Your task to perform on an android device: Open eBay Image 0: 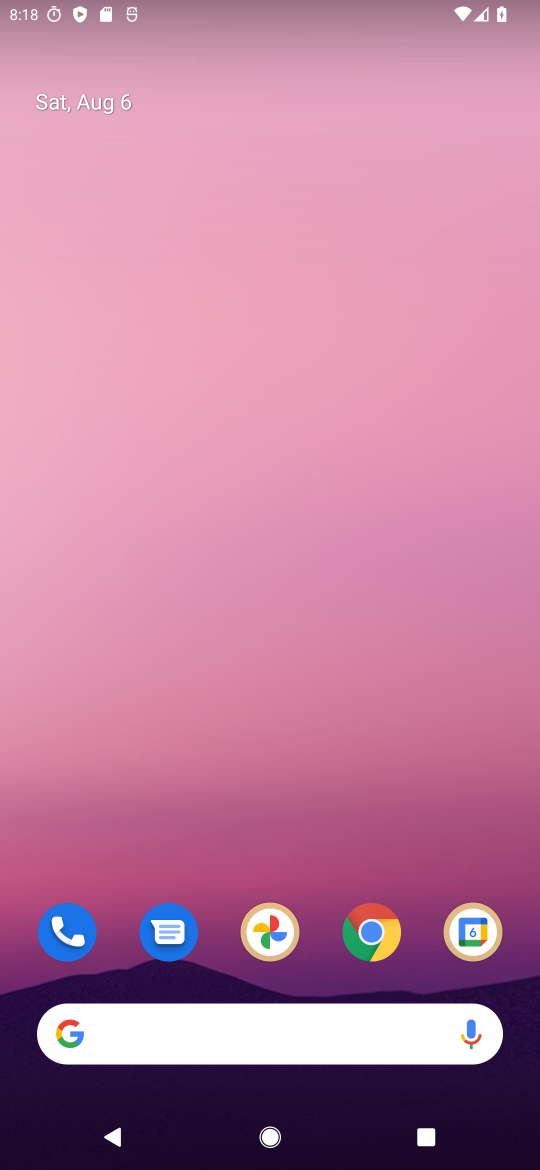
Step 0: press home button
Your task to perform on an android device: Open eBay Image 1: 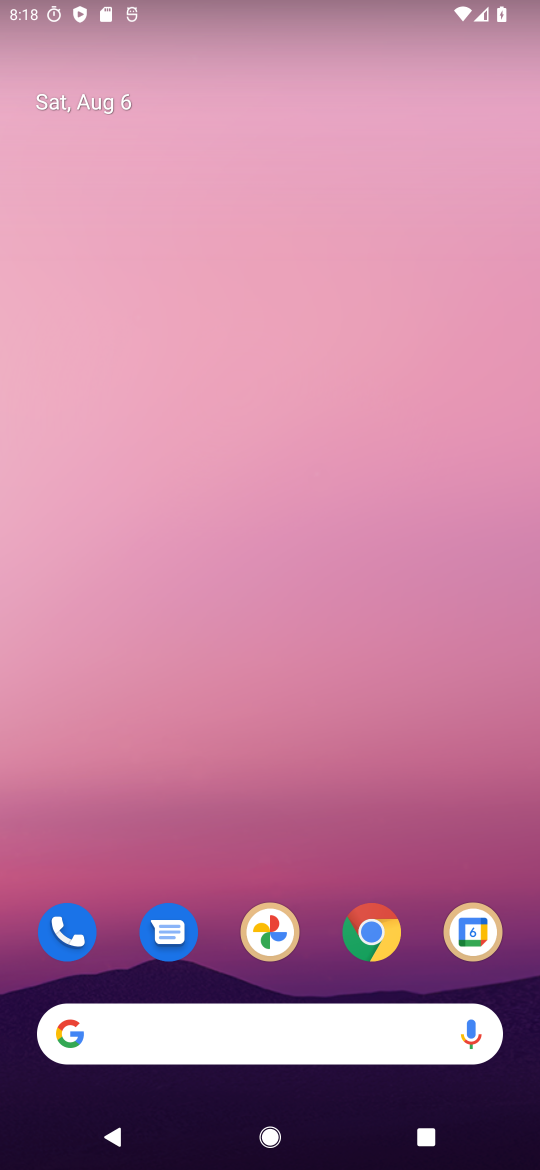
Step 1: click (361, 920)
Your task to perform on an android device: Open eBay Image 2: 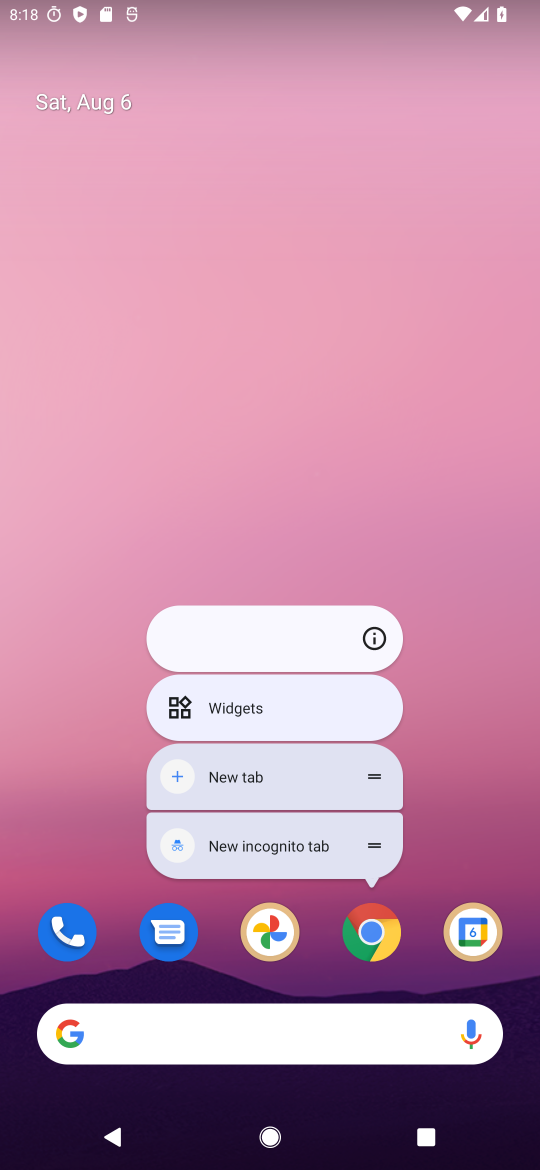
Step 2: click (364, 936)
Your task to perform on an android device: Open eBay Image 3: 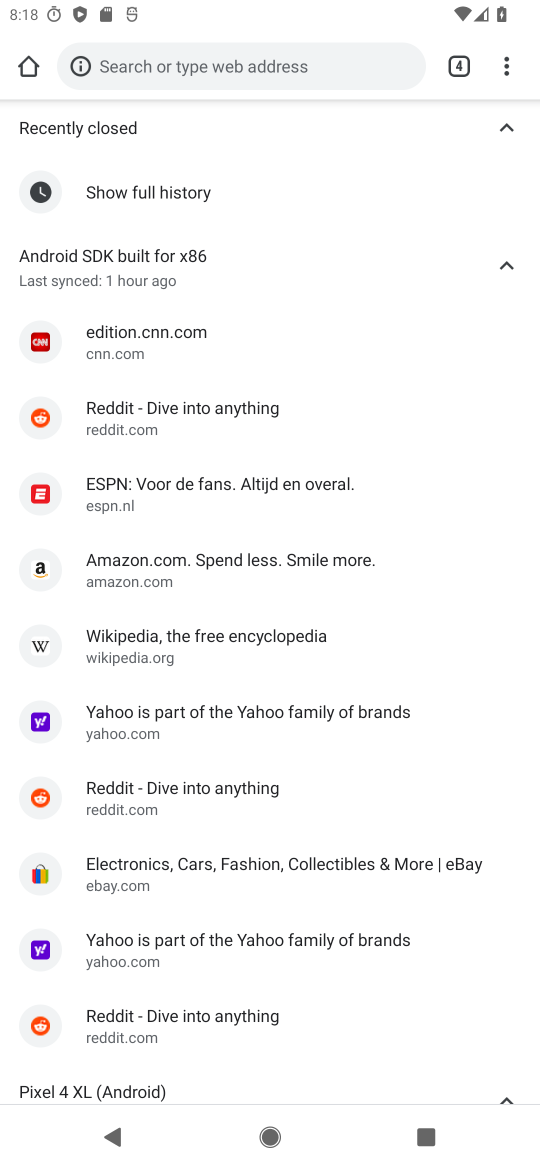
Step 3: drag from (503, 49) to (360, 207)
Your task to perform on an android device: Open eBay Image 4: 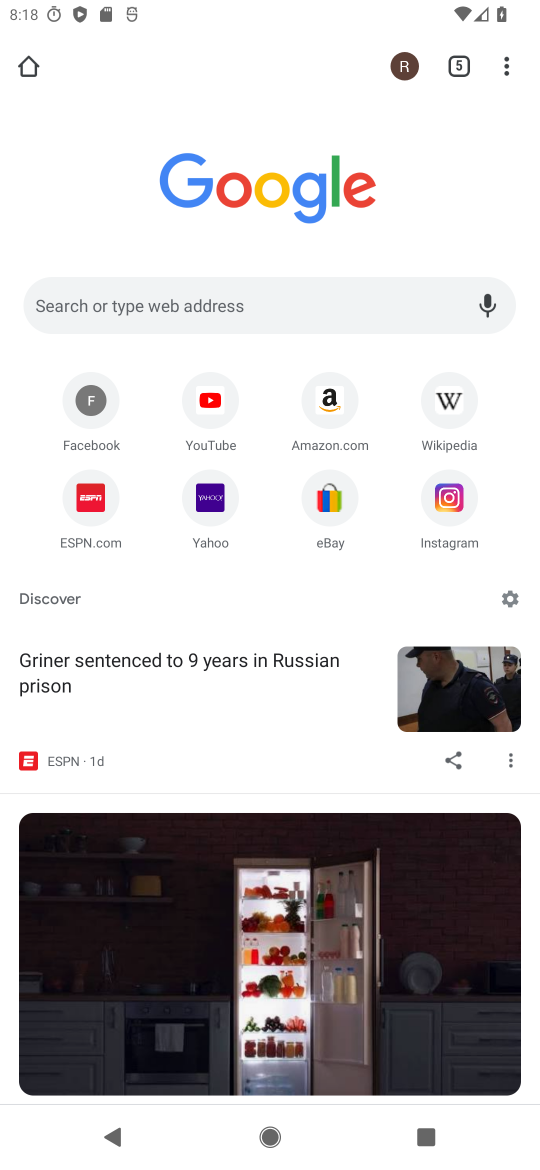
Step 4: click (324, 501)
Your task to perform on an android device: Open eBay Image 5: 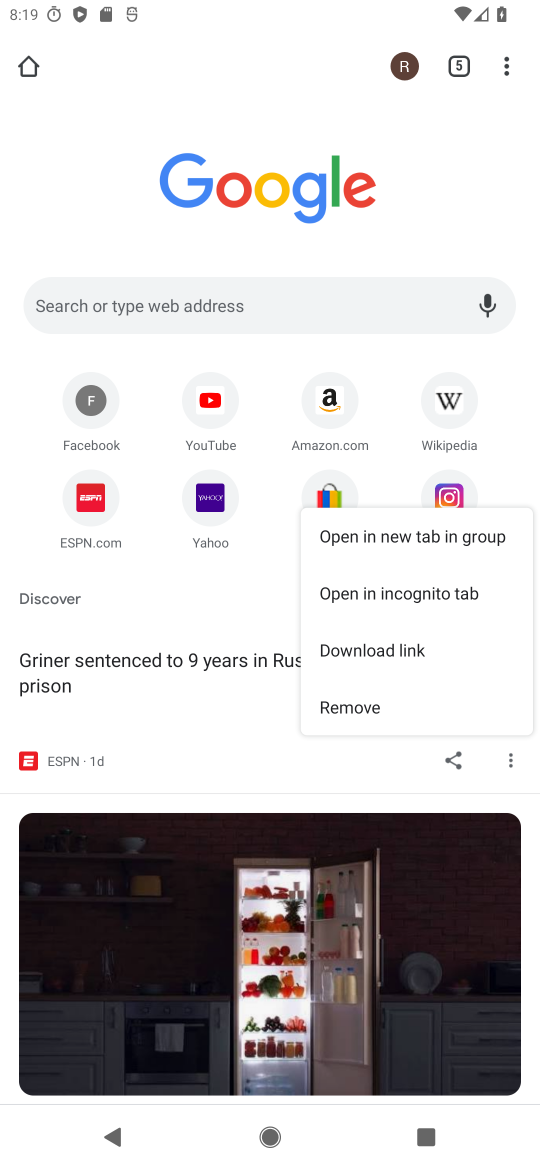
Step 5: click (330, 484)
Your task to perform on an android device: Open eBay Image 6: 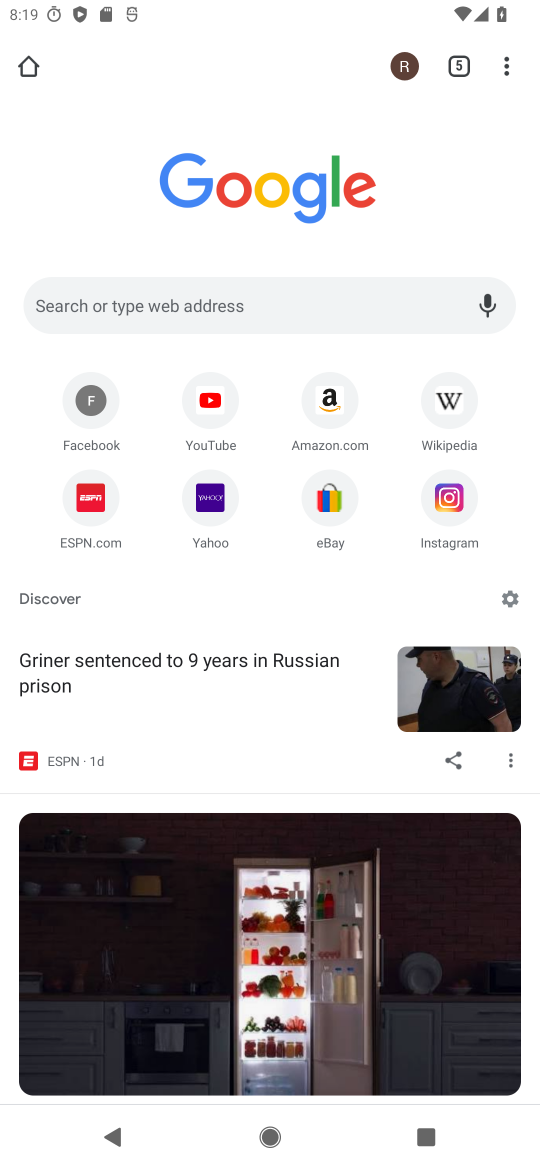
Step 6: click (326, 497)
Your task to perform on an android device: Open eBay Image 7: 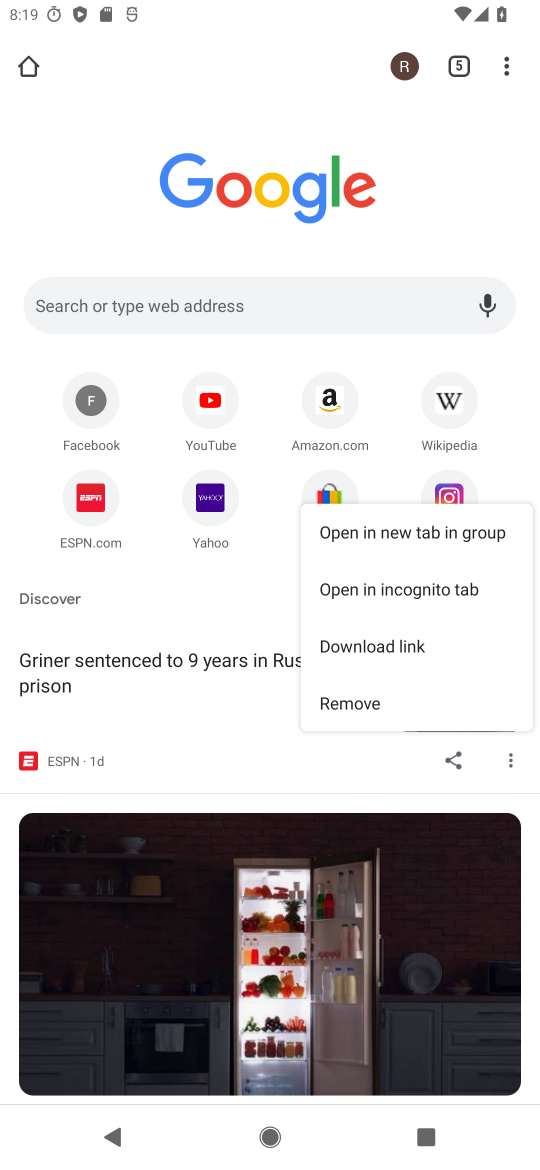
Step 7: click (334, 494)
Your task to perform on an android device: Open eBay Image 8: 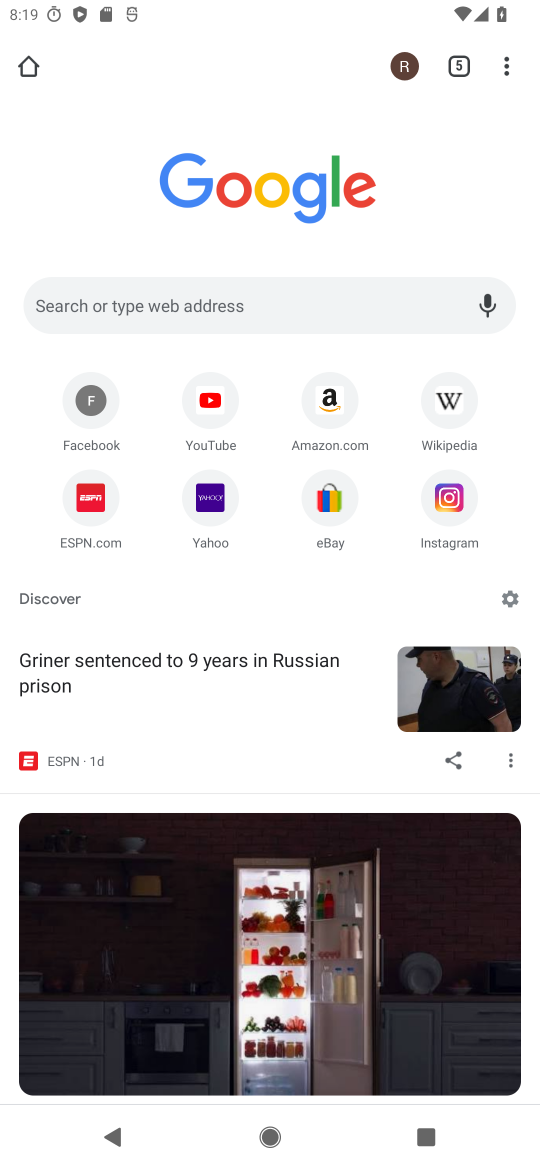
Step 8: click (337, 494)
Your task to perform on an android device: Open eBay Image 9: 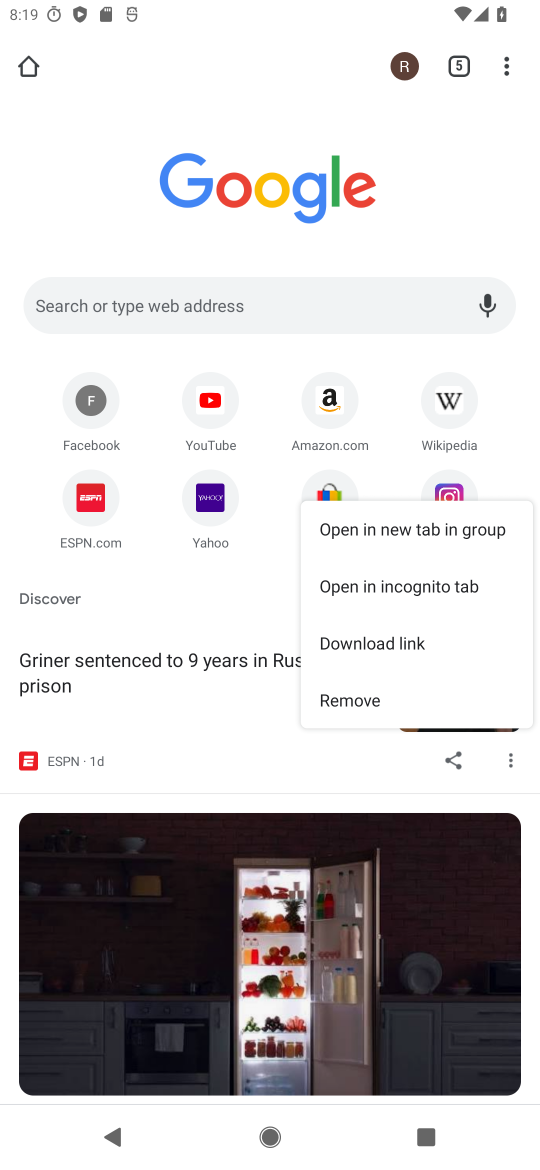
Step 9: click (327, 494)
Your task to perform on an android device: Open eBay Image 10: 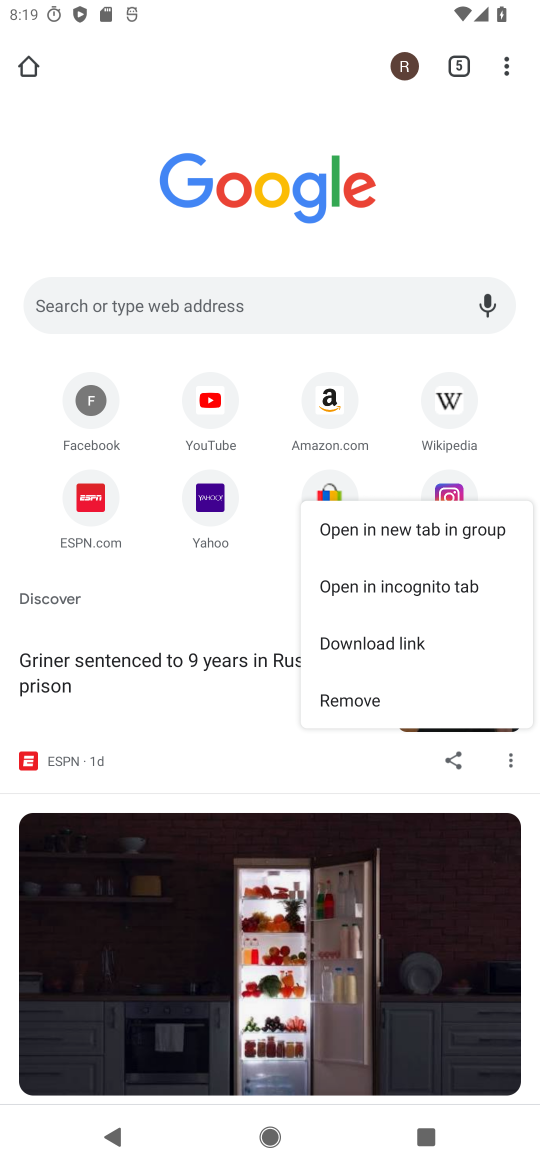
Step 10: click (337, 482)
Your task to perform on an android device: Open eBay Image 11: 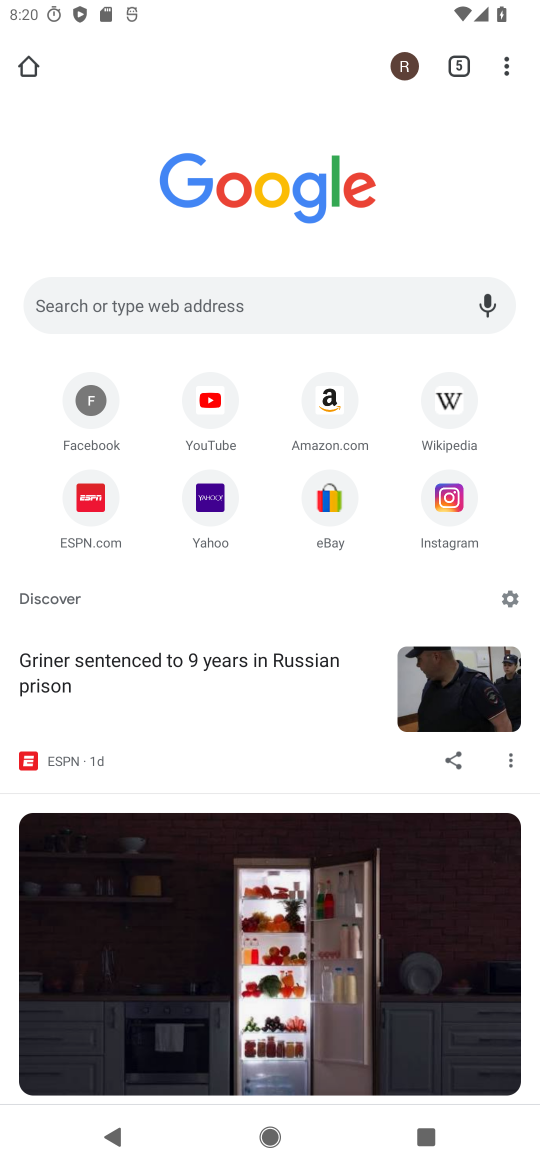
Step 11: click (332, 500)
Your task to perform on an android device: Open eBay Image 12: 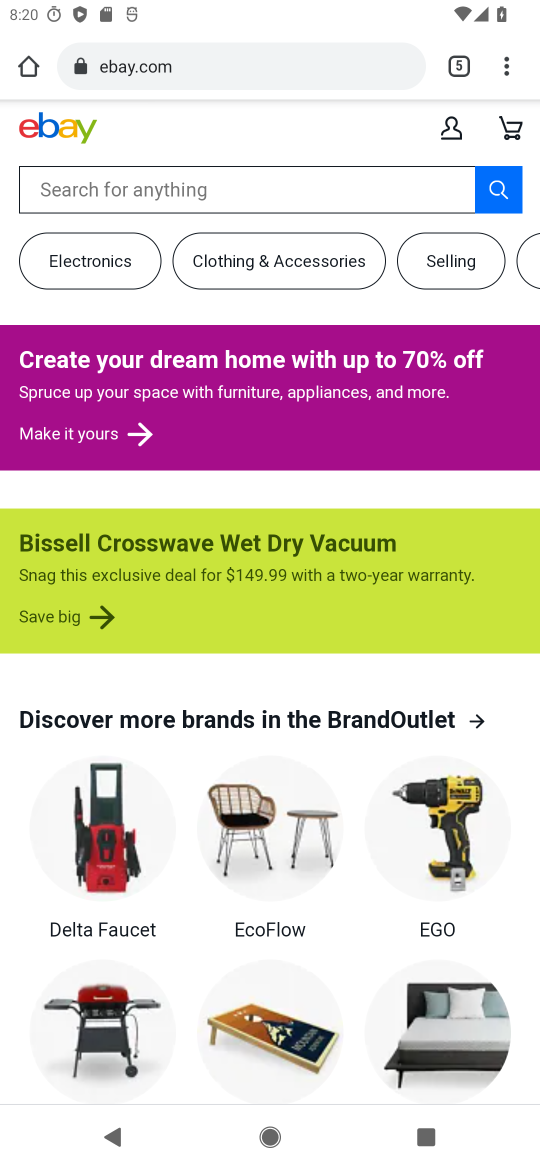
Step 12: task complete